Your task to perform on an android device: delete a single message in the gmail app Image 0: 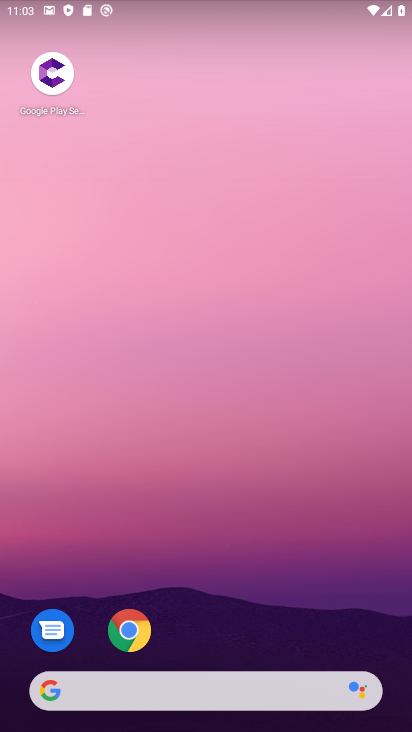
Step 0: drag from (310, 663) to (279, 168)
Your task to perform on an android device: delete a single message in the gmail app Image 1: 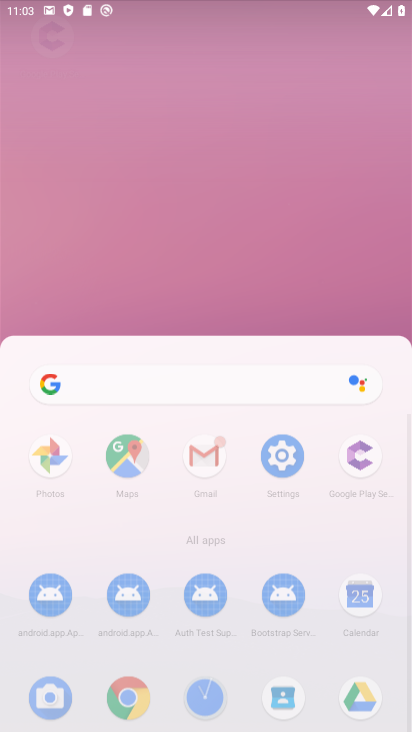
Step 1: drag from (184, 561) to (201, 161)
Your task to perform on an android device: delete a single message in the gmail app Image 2: 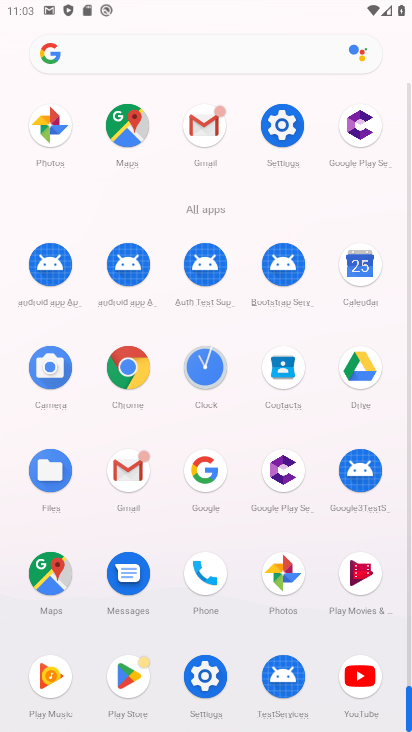
Step 2: drag from (256, 480) to (247, 171)
Your task to perform on an android device: delete a single message in the gmail app Image 3: 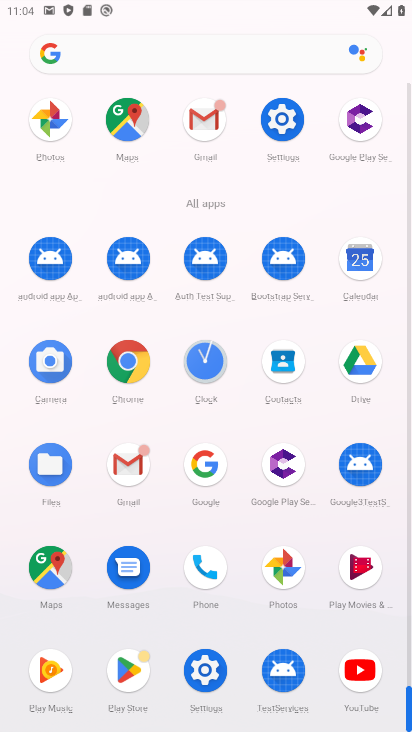
Step 3: click (122, 469)
Your task to perform on an android device: delete a single message in the gmail app Image 4: 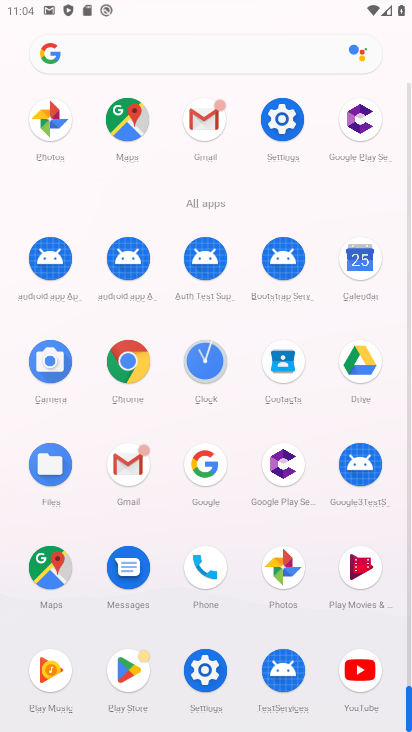
Step 4: click (121, 464)
Your task to perform on an android device: delete a single message in the gmail app Image 5: 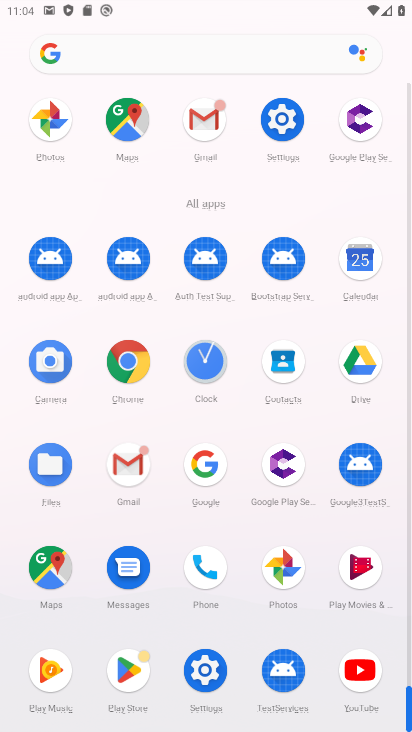
Step 5: click (117, 457)
Your task to perform on an android device: delete a single message in the gmail app Image 6: 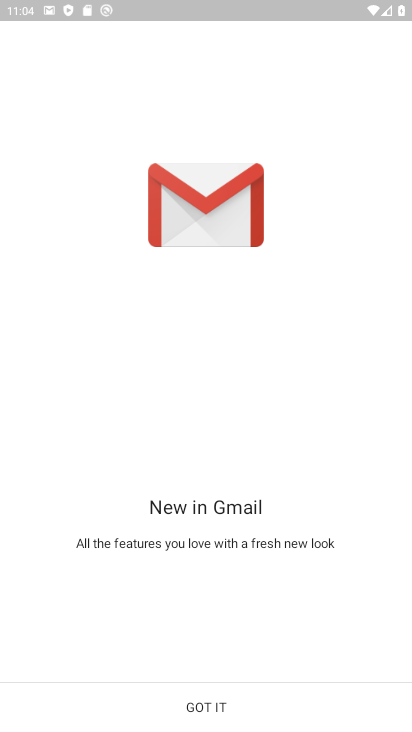
Step 6: click (217, 717)
Your task to perform on an android device: delete a single message in the gmail app Image 7: 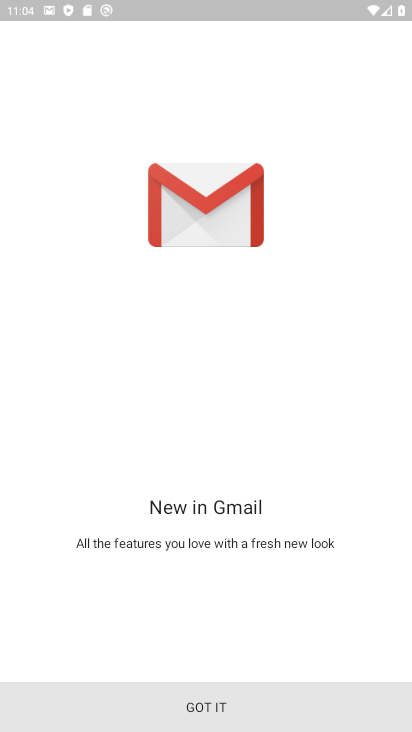
Step 7: click (220, 711)
Your task to perform on an android device: delete a single message in the gmail app Image 8: 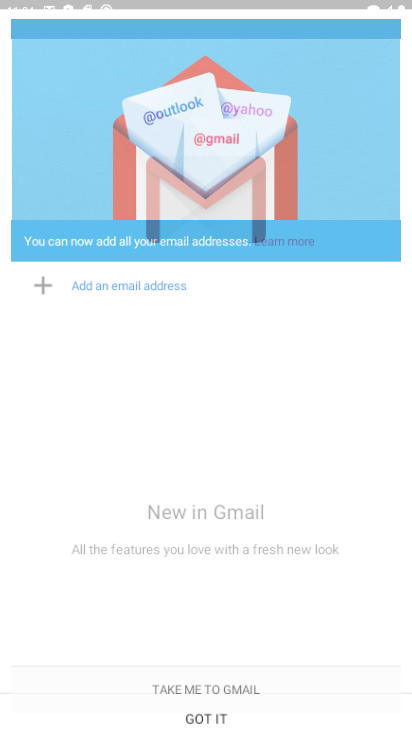
Step 8: click (222, 711)
Your task to perform on an android device: delete a single message in the gmail app Image 9: 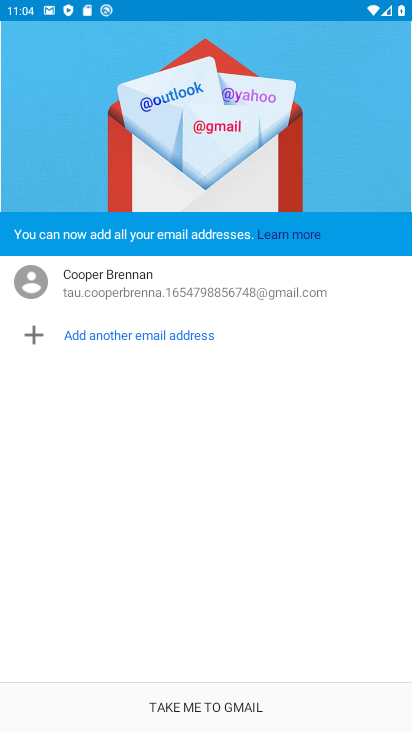
Step 9: click (225, 712)
Your task to perform on an android device: delete a single message in the gmail app Image 10: 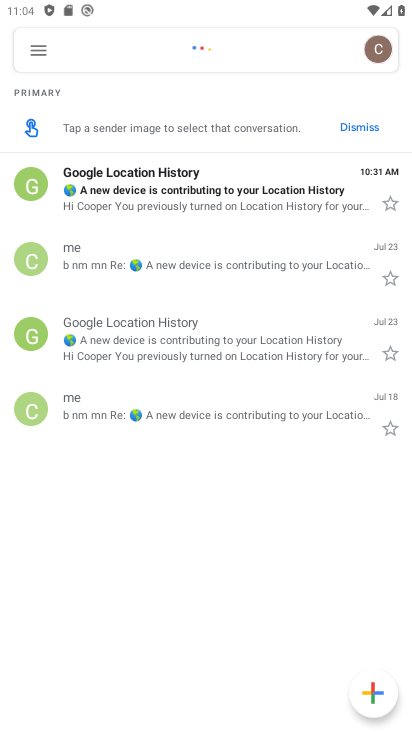
Step 10: click (190, 194)
Your task to perform on an android device: delete a single message in the gmail app Image 11: 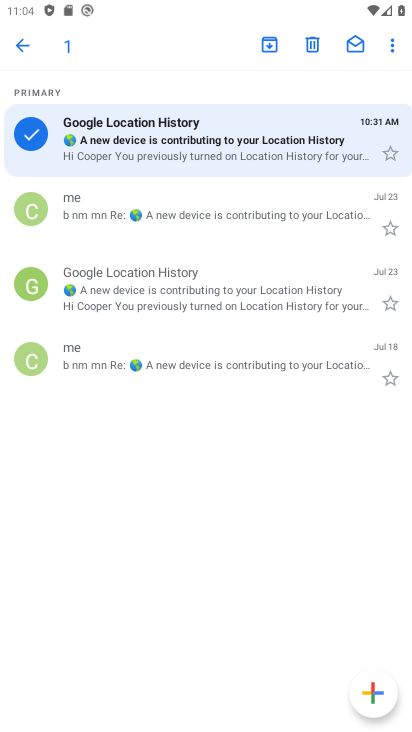
Step 11: click (314, 44)
Your task to perform on an android device: delete a single message in the gmail app Image 12: 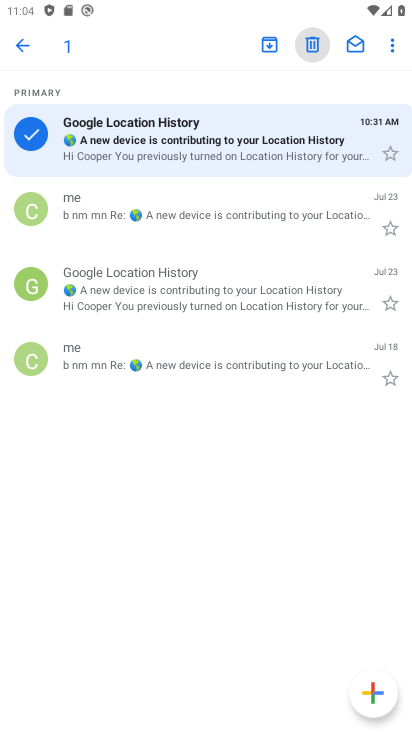
Step 12: click (315, 43)
Your task to perform on an android device: delete a single message in the gmail app Image 13: 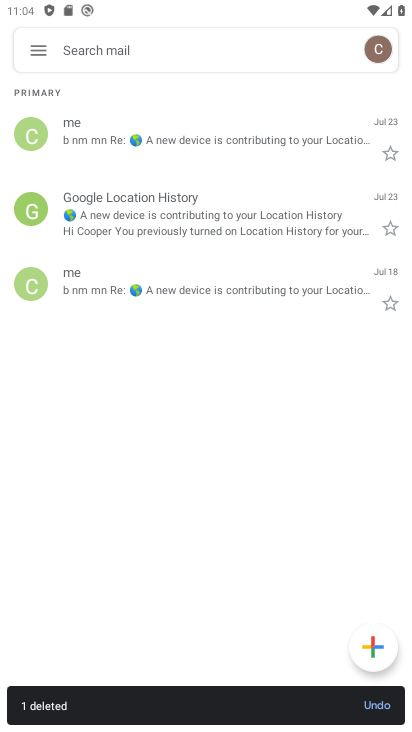
Step 13: task complete